Your task to perform on an android device: Open my contact list Image 0: 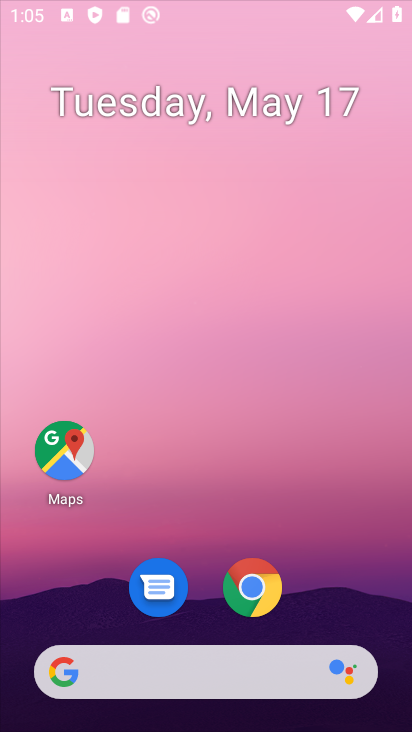
Step 0: click (287, 147)
Your task to perform on an android device: Open my contact list Image 1: 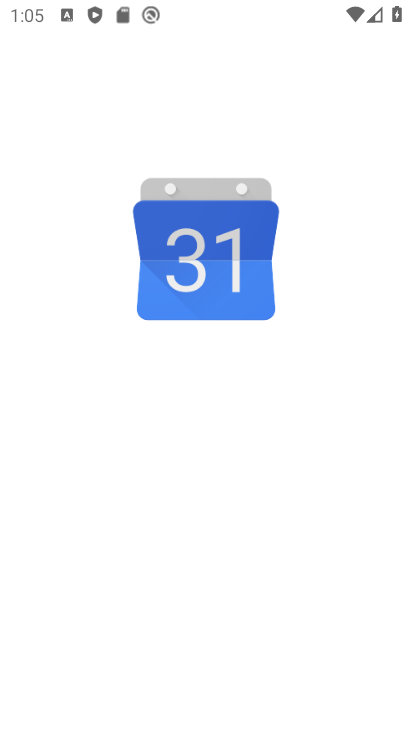
Step 1: drag from (206, 630) to (291, 53)
Your task to perform on an android device: Open my contact list Image 2: 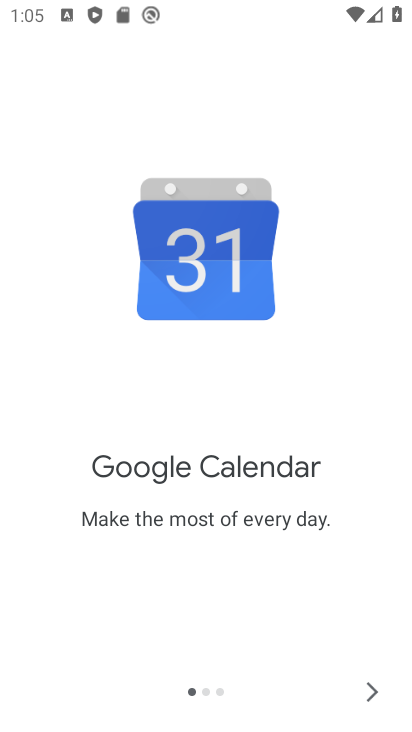
Step 2: press home button
Your task to perform on an android device: Open my contact list Image 3: 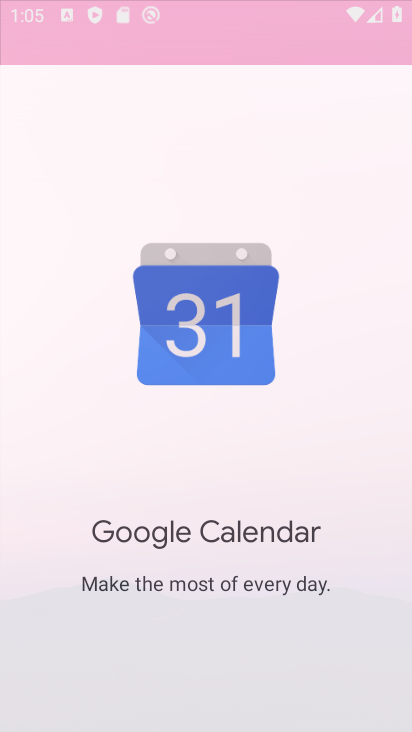
Step 3: press home button
Your task to perform on an android device: Open my contact list Image 4: 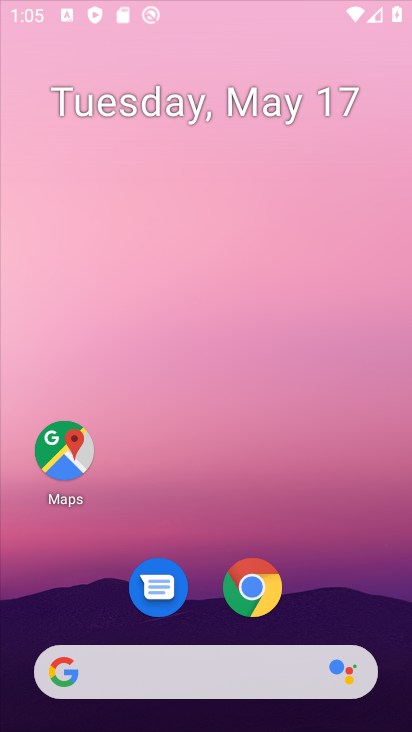
Step 4: press home button
Your task to perform on an android device: Open my contact list Image 5: 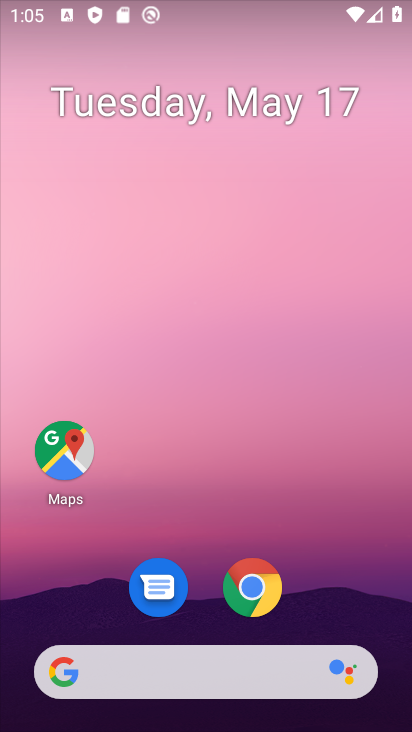
Step 5: drag from (225, 616) to (187, 40)
Your task to perform on an android device: Open my contact list Image 6: 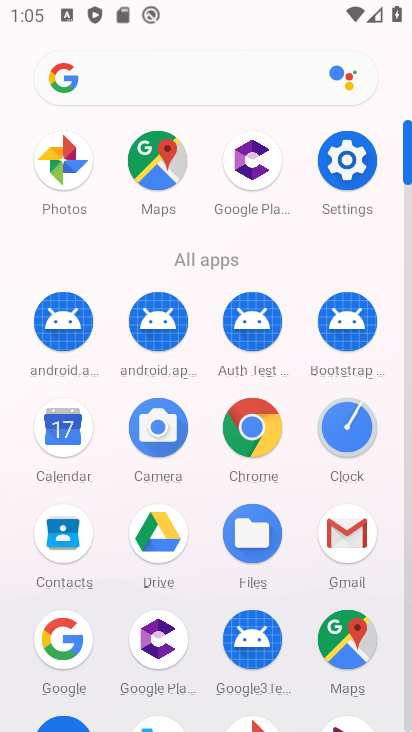
Step 6: drag from (201, 667) to (226, 192)
Your task to perform on an android device: Open my contact list Image 7: 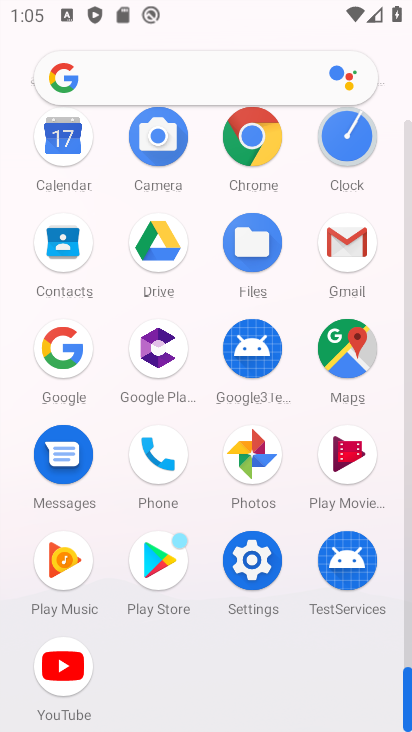
Step 7: click (61, 230)
Your task to perform on an android device: Open my contact list Image 8: 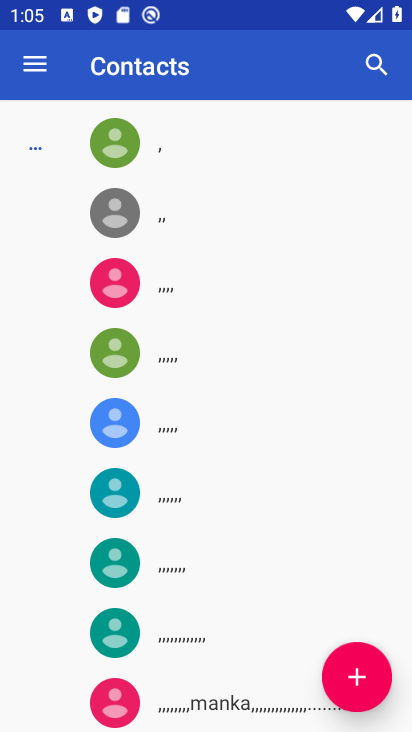
Step 8: task complete